Your task to perform on an android device: delete location history Image 0: 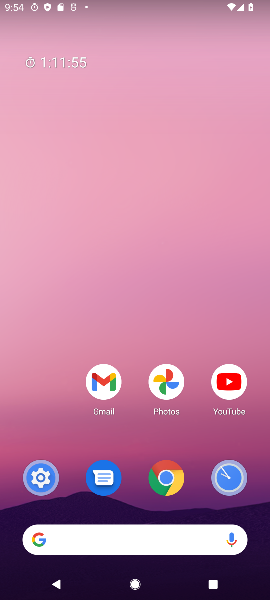
Step 0: press home button
Your task to perform on an android device: delete location history Image 1: 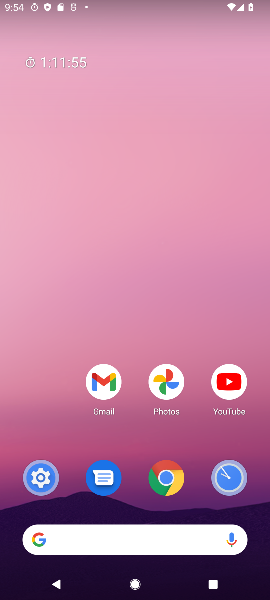
Step 1: press home button
Your task to perform on an android device: delete location history Image 2: 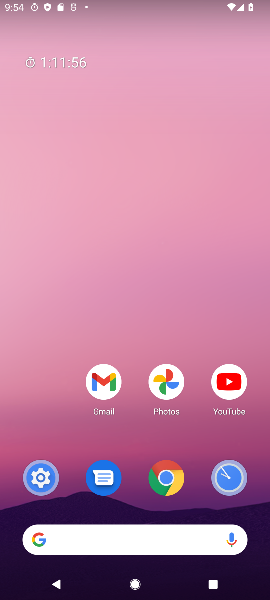
Step 2: press home button
Your task to perform on an android device: delete location history Image 3: 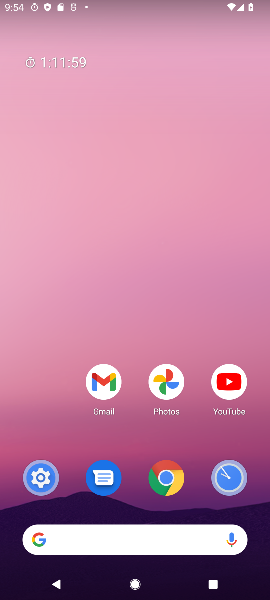
Step 3: drag from (45, 432) to (66, 130)
Your task to perform on an android device: delete location history Image 4: 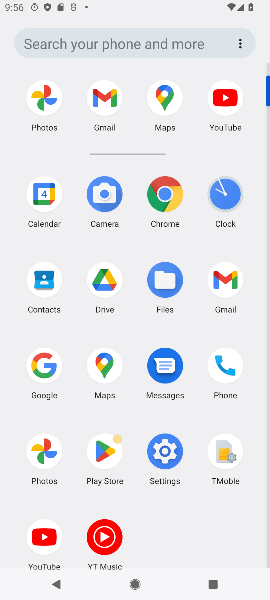
Step 4: click (114, 359)
Your task to perform on an android device: delete location history Image 5: 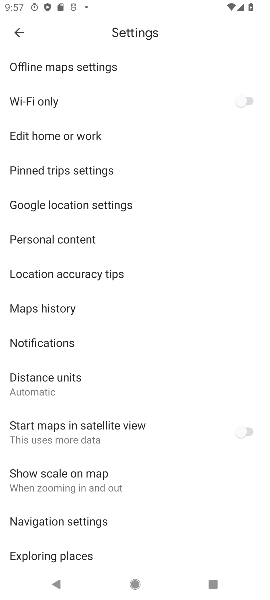
Step 5: click (37, 303)
Your task to perform on an android device: delete location history Image 6: 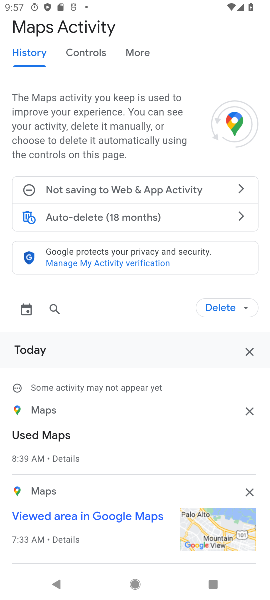
Step 6: click (92, 55)
Your task to perform on an android device: delete location history Image 7: 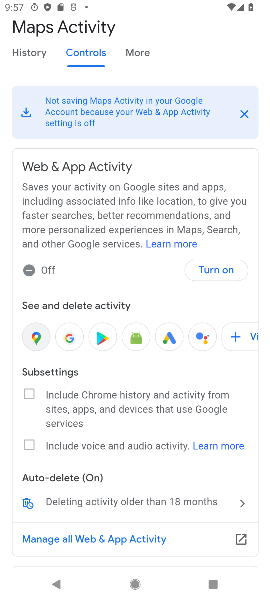
Step 7: click (14, 60)
Your task to perform on an android device: delete location history Image 8: 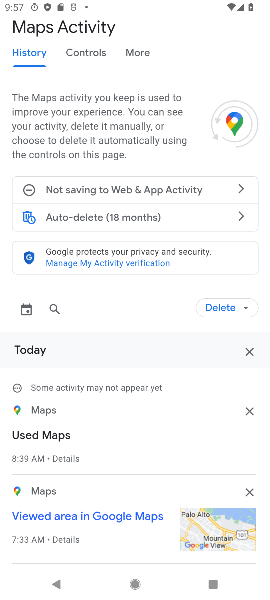
Step 8: click (221, 305)
Your task to perform on an android device: delete location history Image 9: 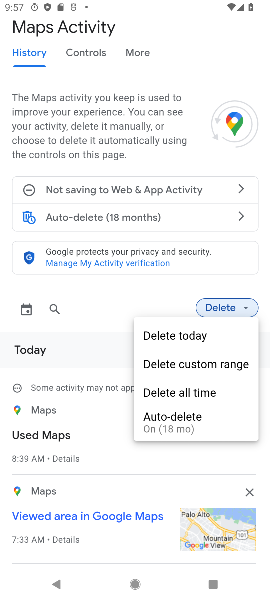
Step 9: click (169, 389)
Your task to perform on an android device: delete location history Image 10: 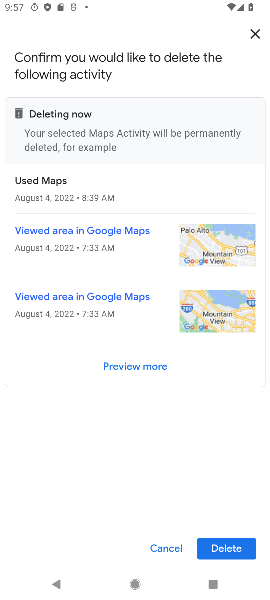
Step 10: click (231, 546)
Your task to perform on an android device: delete location history Image 11: 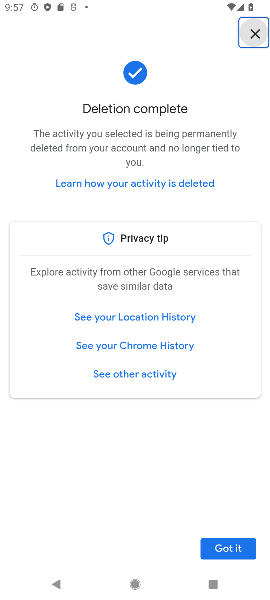
Step 11: click (213, 548)
Your task to perform on an android device: delete location history Image 12: 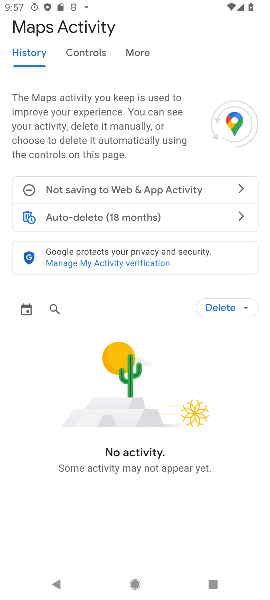
Step 12: task complete